Your task to perform on an android device: search for starred emails in the gmail app Image 0: 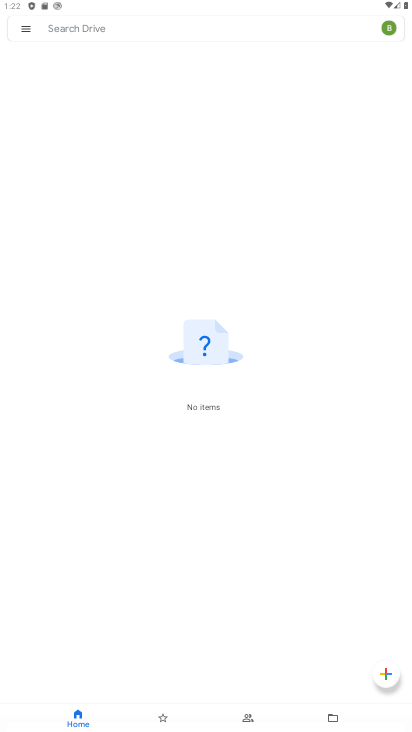
Step 0: press home button
Your task to perform on an android device: search for starred emails in the gmail app Image 1: 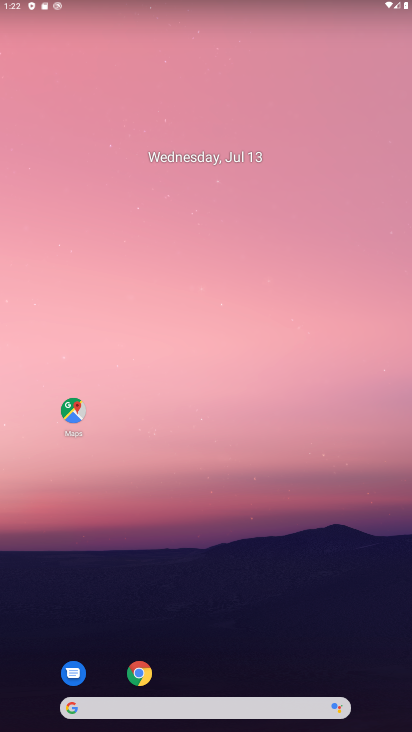
Step 1: drag from (230, 657) to (280, 226)
Your task to perform on an android device: search for starred emails in the gmail app Image 2: 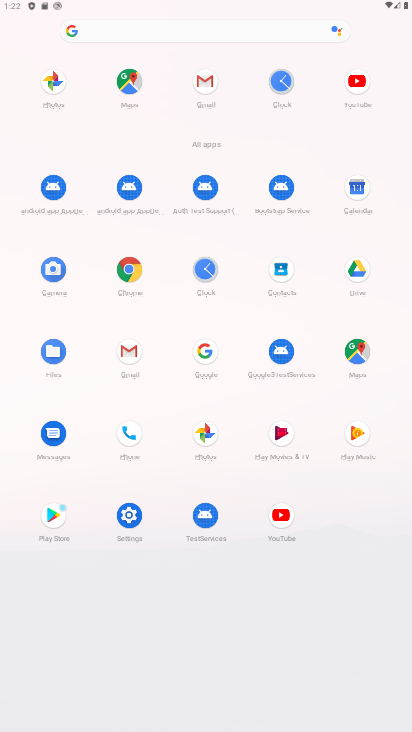
Step 2: click (206, 80)
Your task to perform on an android device: search for starred emails in the gmail app Image 3: 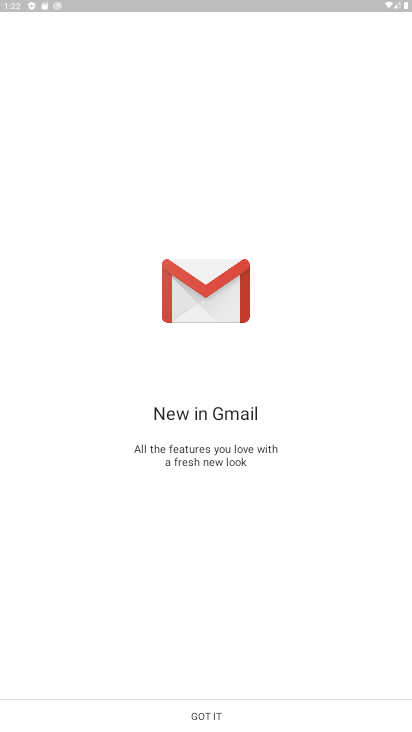
Step 3: press home button
Your task to perform on an android device: search for starred emails in the gmail app Image 4: 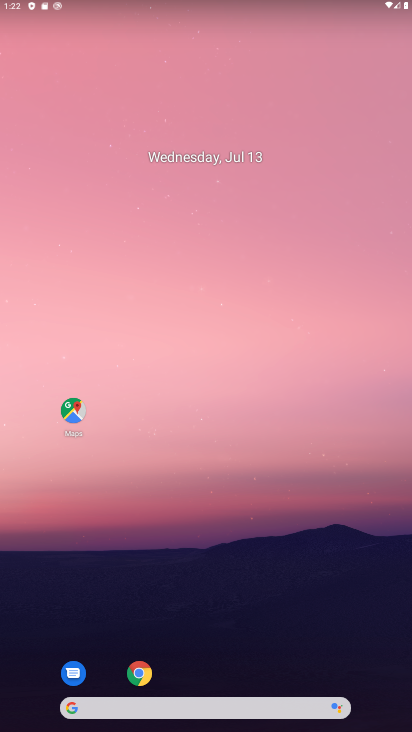
Step 4: drag from (195, 638) to (256, 113)
Your task to perform on an android device: search for starred emails in the gmail app Image 5: 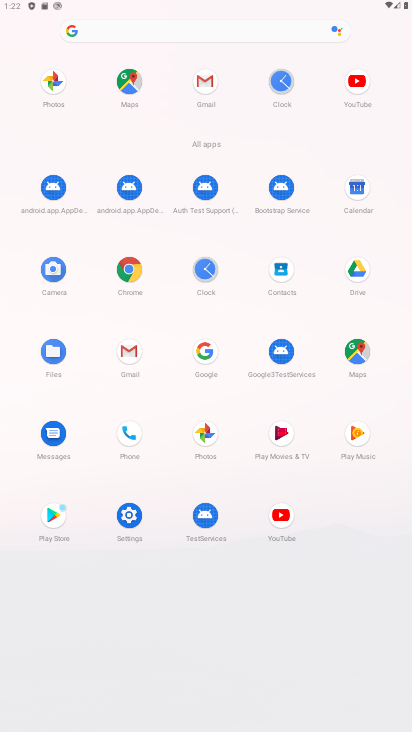
Step 5: click (132, 355)
Your task to perform on an android device: search for starred emails in the gmail app Image 6: 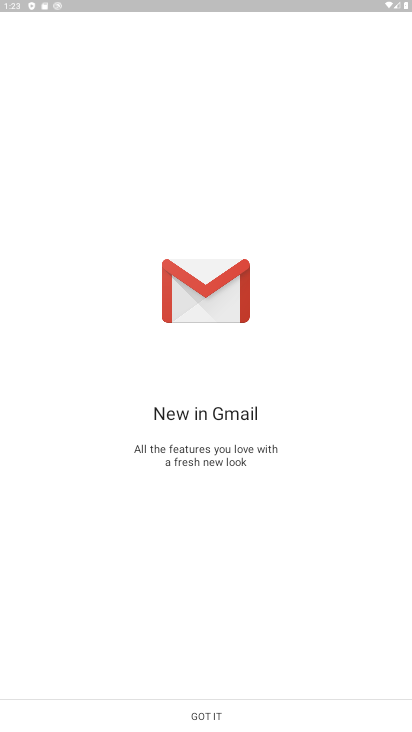
Step 6: click (194, 713)
Your task to perform on an android device: search for starred emails in the gmail app Image 7: 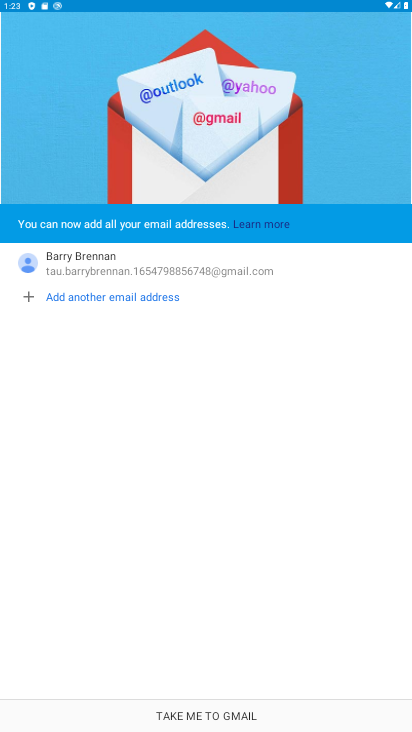
Step 7: click (203, 715)
Your task to perform on an android device: search for starred emails in the gmail app Image 8: 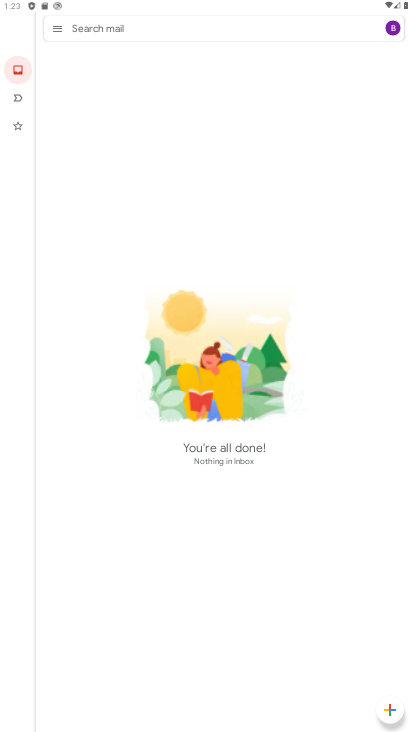
Step 8: click (57, 25)
Your task to perform on an android device: search for starred emails in the gmail app Image 9: 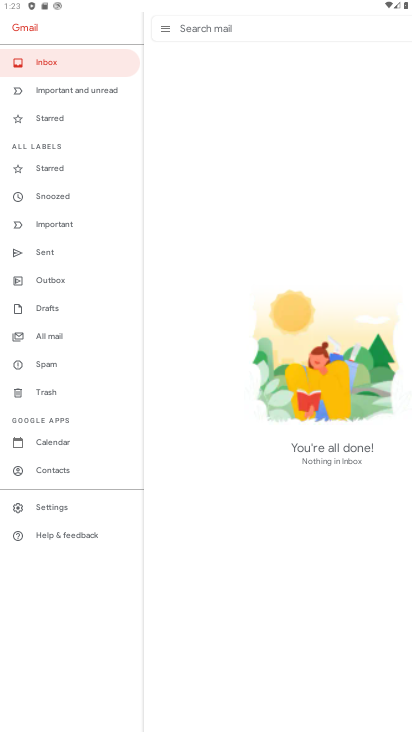
Step 9: click (31, 123)
Your task to perform on an android device: search for starred emails in the gmail app Image 10: 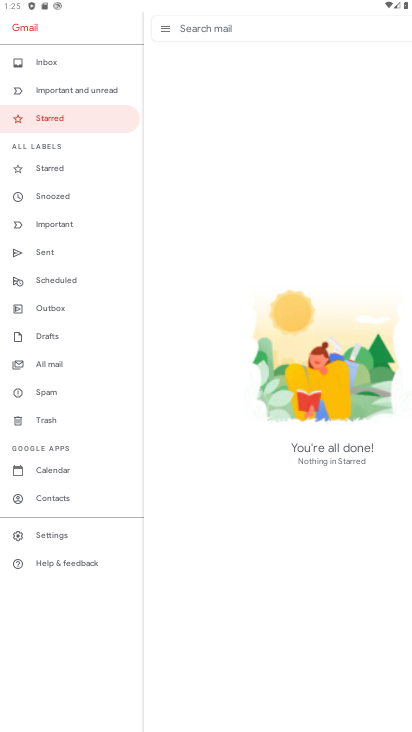
Step 10: task complete